Your task to perform on an android device: open the mobile data screen to see how much data has been used Image 0: 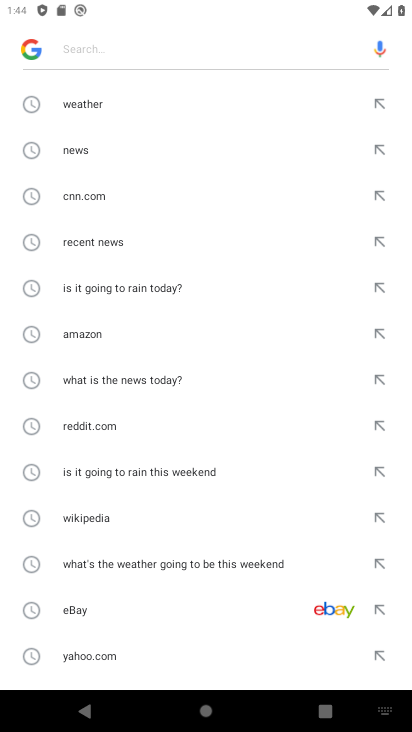
Step 0: press home button
Your task to perform on an android device: open the mobile data screen to see how much data has been used Image 1: 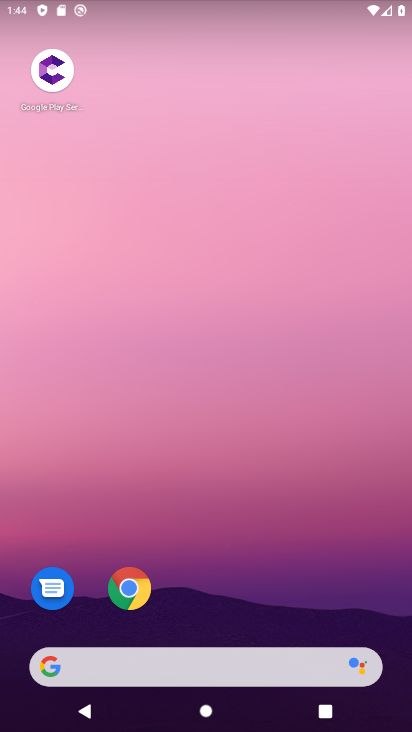
Step 1: drag from (227, 639) to (167, 348)
Your task to perform on an android device: open the mobile data screen to see how much data has been used Image 2: 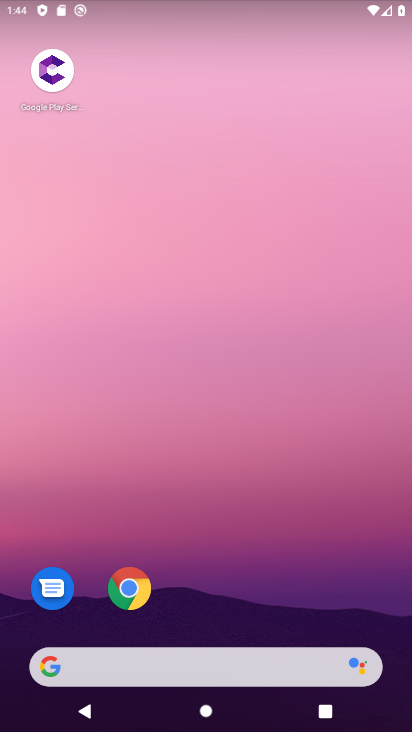
Step 2: drag from (184, 619) to (272, 29)
Your task to perform on an android device: open the mobile data screen to see how much data has been used Image 3: 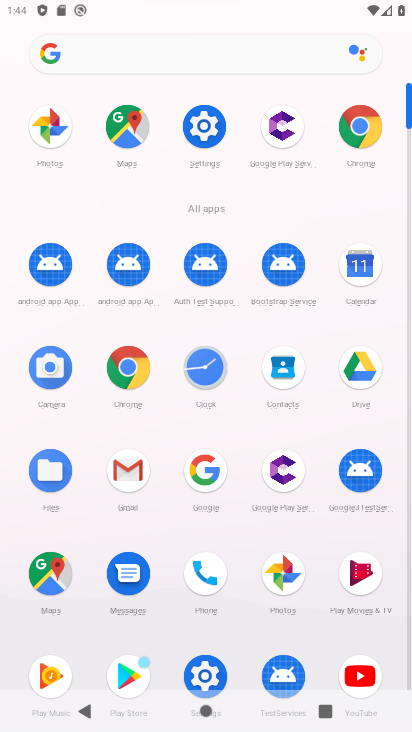
Step 3: click (201, 118)
Your task to perform on an android device: open the mobile data screen to see how much data has been used Image 4: 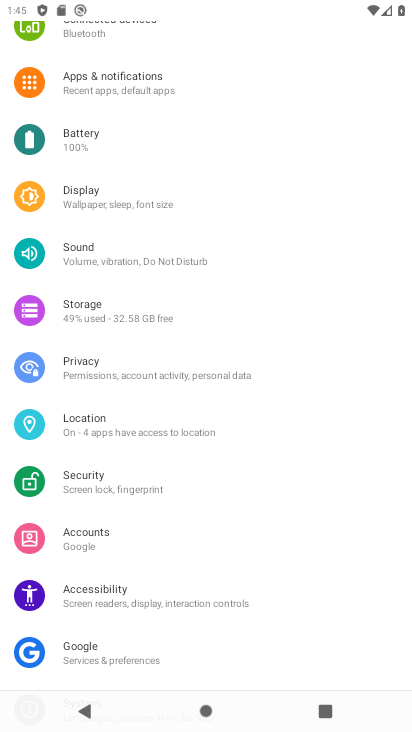
Step 4: drag from (201, 118) to (202, 401)
Your task to perform on an android device: open the mobile data screen to see how much data has been used Image 5: 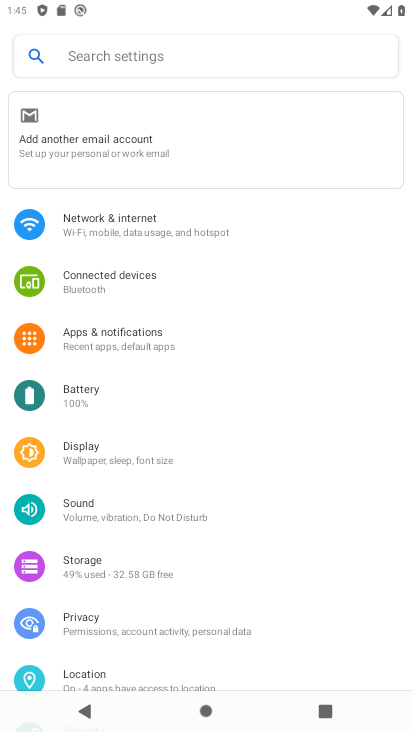
Step 5: click (146, 231)
Your task to perform on an android device: open the mobile data screen to see how much data has been used Image 6: 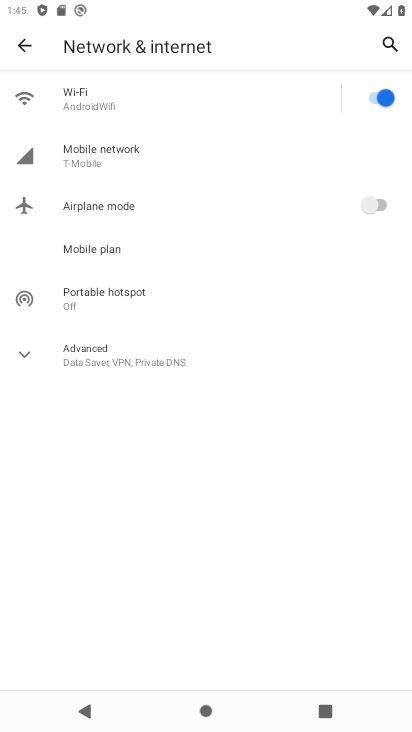
Step 6: click (138, 179)
Your task to perform on an android device: open the mobile data screen to see how much data has been used Image 7: 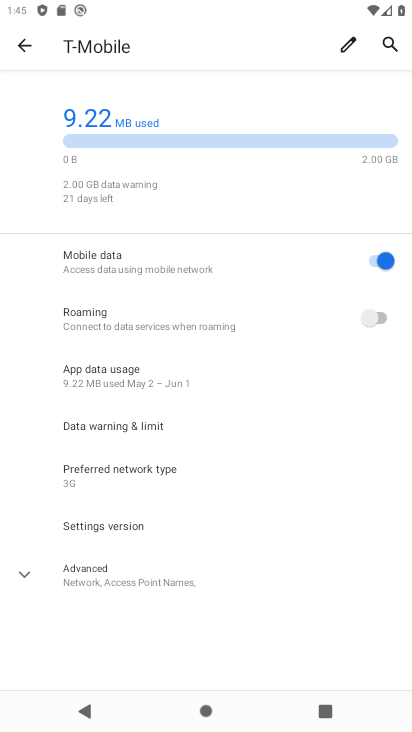
Step 7: task complete